Your task to perform on an android device: Search for "beats solo 3" on costco, select the first entry, add it to the cart, then select checkout. Image 0: 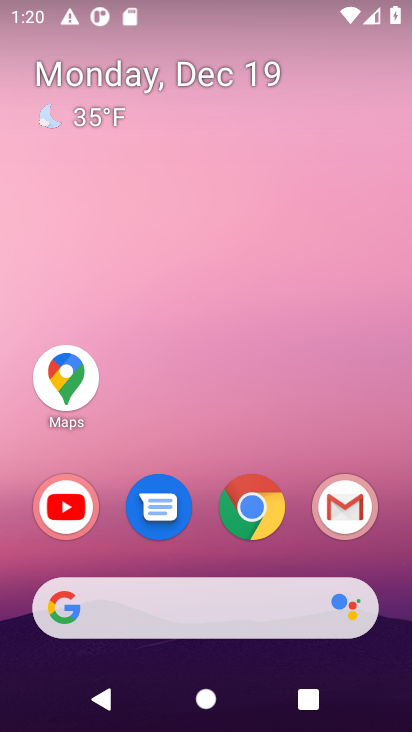
Step 0: click (257, 509)
Your task to perform on an android device: Search for "beats solo 3" on costco, select the first entry, add it to the cart, then select checkout. Image 1: 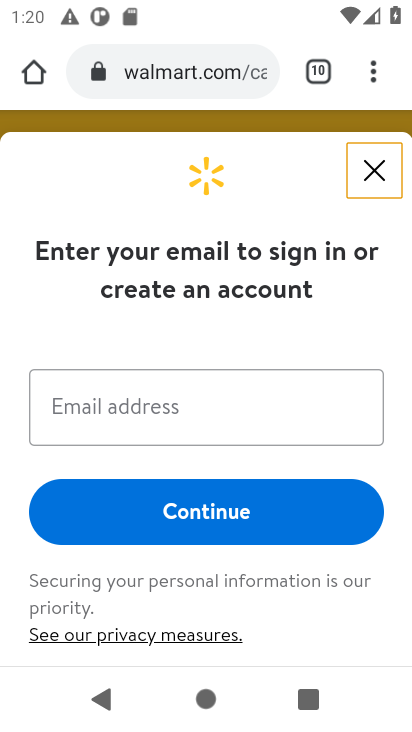
Step 1: click (198, 77)
Your task to perform on an android device: Search for "beats solo 3" on costco, select the first entry, add it to the cart, then select checkout. Image 2: 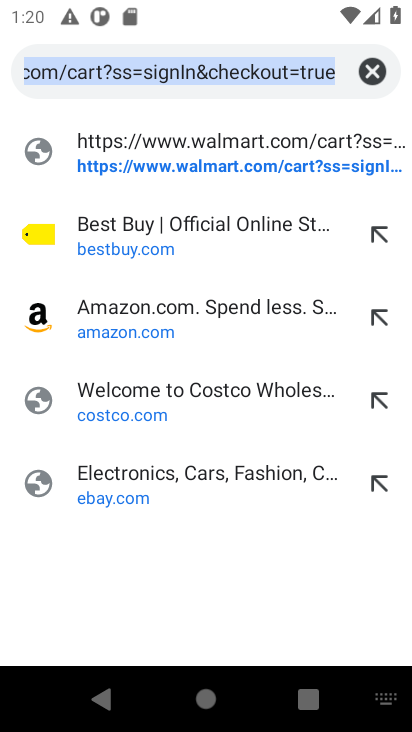
Step 2: click (105, 391)
Your task to perform on an android device: Search for "beats solo 3" on costco, select the first entry, add it to the cart, then select checkout. Image 3: 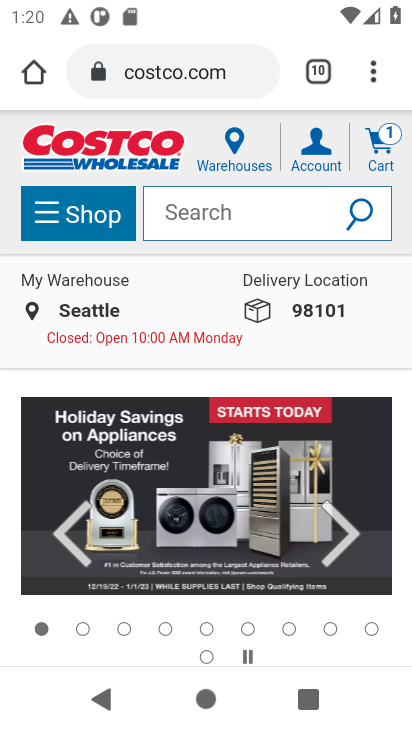
Step 3: click (164, 216)
Your task to perform on an android device: Search for "beats solo 3" on costco, select the first entry, add it to the cart, then select checkout. Image 4: 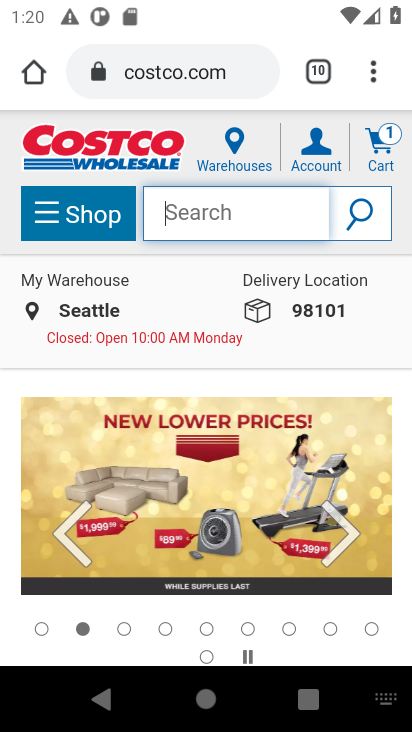
Step 4: type "beats solo 3"
Your task to perform on an android device: Search for "beats solo 3" on costco, select the first entry, add it to the cart, then select checkout. Image 5: 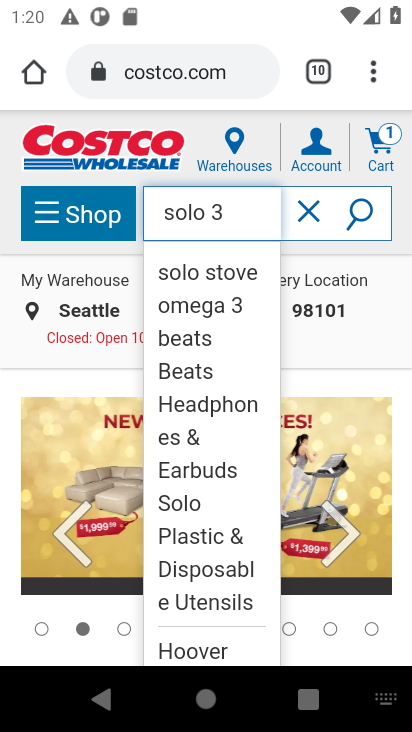
Step 5: click (364, 215)
Your task to perform on an android device: Search for "beats solo 3" on costco, select the first entry, add it to the cart, then select checkout. Image 6: 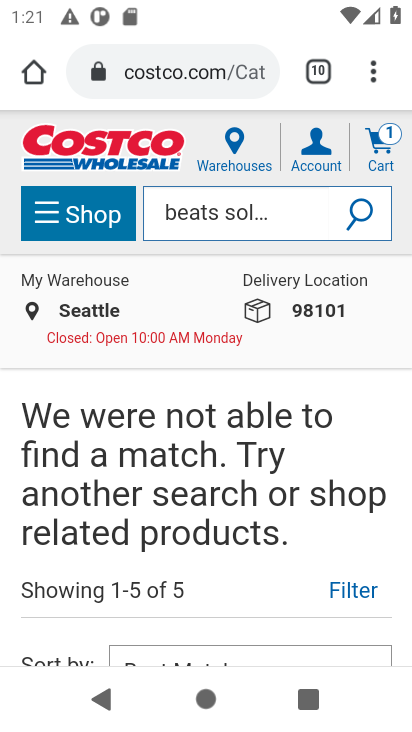
Step 6: task complete